Your task to perform on an android device: Open Youtube and go to the subscriptions tab Image 0: 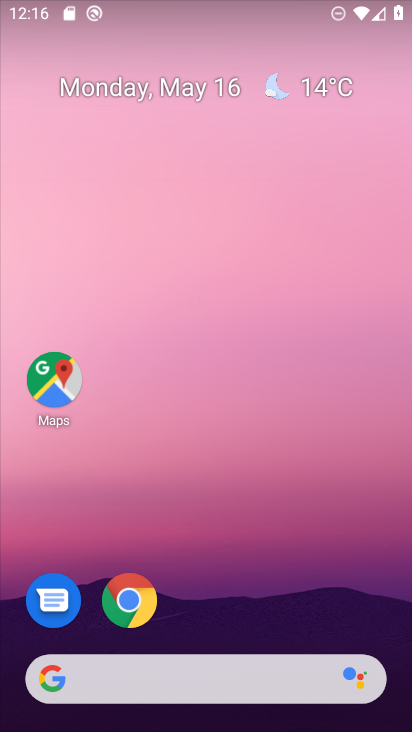
Step 0: drag from (220, 616) to (279, 47)
Your task to perform on an android device: Open Youtube and go to the subscriptions tab Image 1: 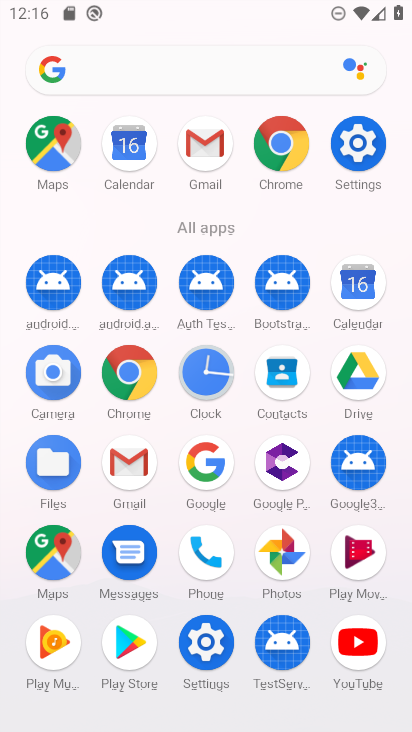
Step 1: click (355, 635)
Your task to perform on an android device: Open Youtube and go to the subscriptions tab Image 2: 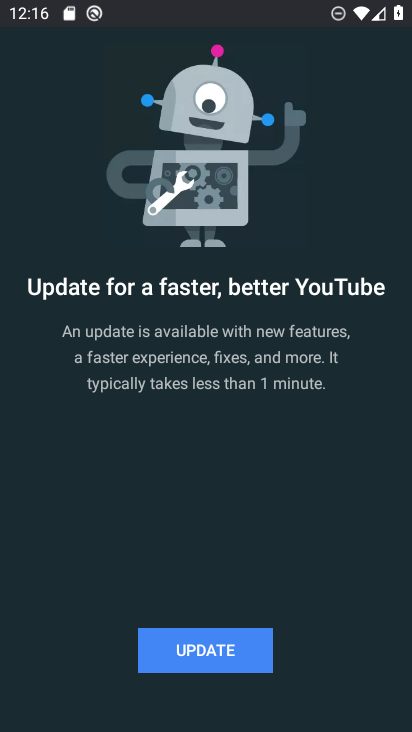
Step 2: click (207, 646)
Your task to perform on an android device: Open Youtube and go to the subscriptions tab Image 3: 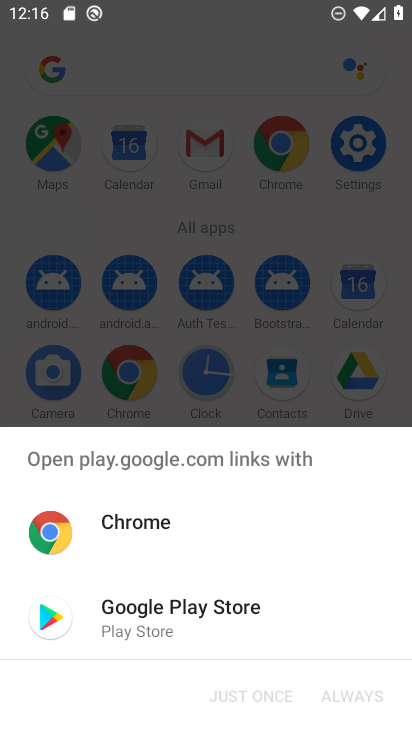
Step 3: click (146, 613)
Your task to perform on an android device: Open Youtube and go to the subscriptions tab Image 4: 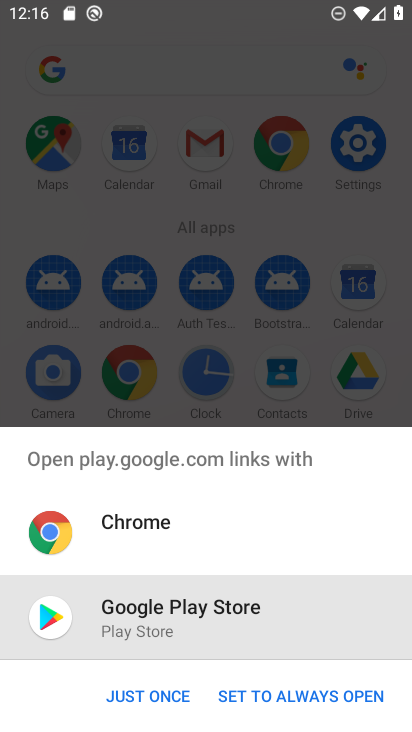
Step 4: click (155, 705)
Your task to perform on an android device: Open Youtube and go to the subscriptions tab Image 5: 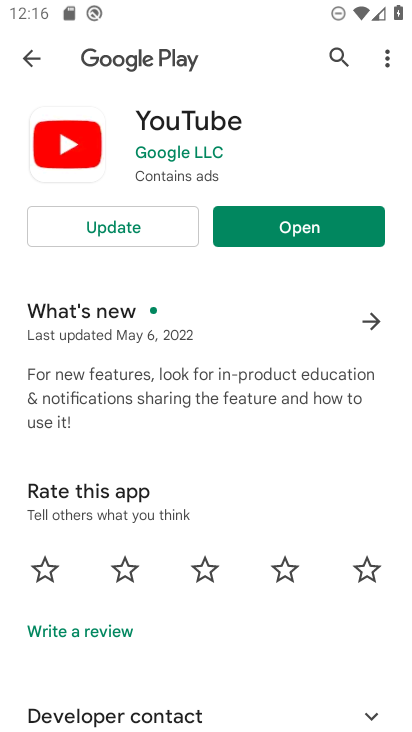
Step 5: click (123, 235)
Your task to perform on an android device: Open Youtube and go to the subscriptions tab Image 6: 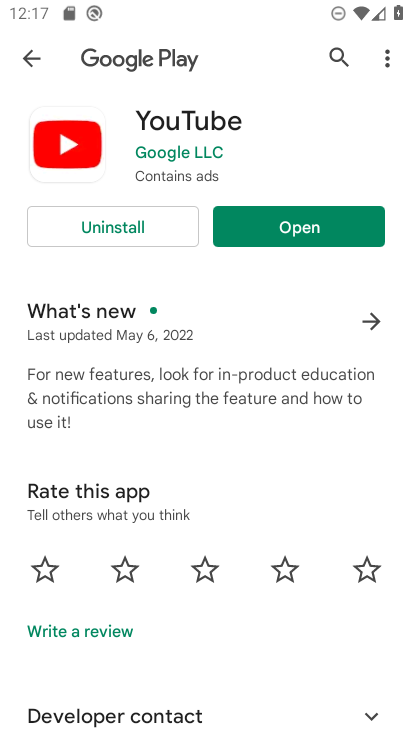
Step 6: click (314, 226)
Your task to perform on an android device: Open Youtube and go to the subscriptions tab Image 7: 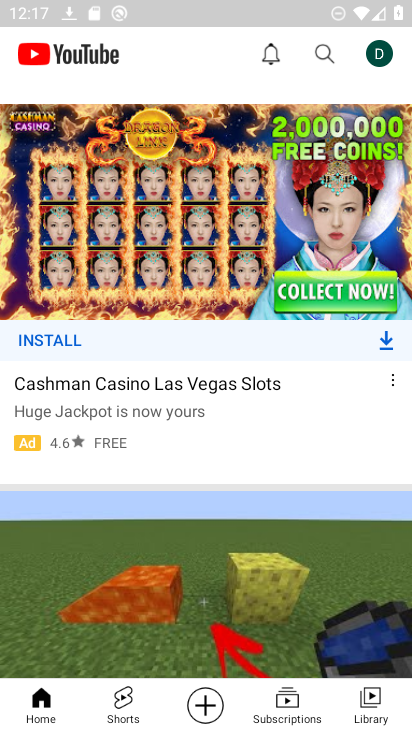
Step 7: drag from (217, 512) to (226, 138)
Your task to perform on an android device: Open Youtube and go to the subscriptions tab Image 8: 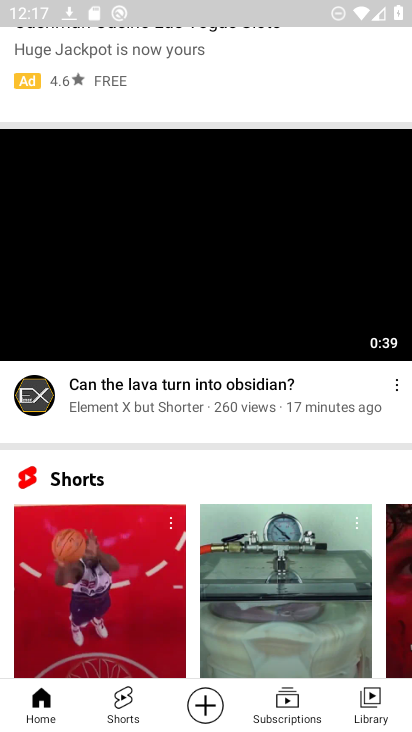
Step 8: drag from (175, 116) to (197, 521)
Your task to perform on an android device: Open Youtube and go to the subscriptions tab Image 9: 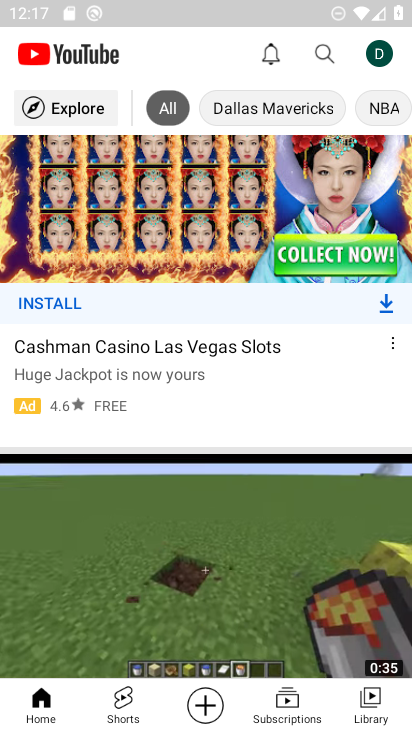
Step 9: click (76, 95)
Your task to perform on an android device: Open Youtube and go to the subscriptions tab Image 10: 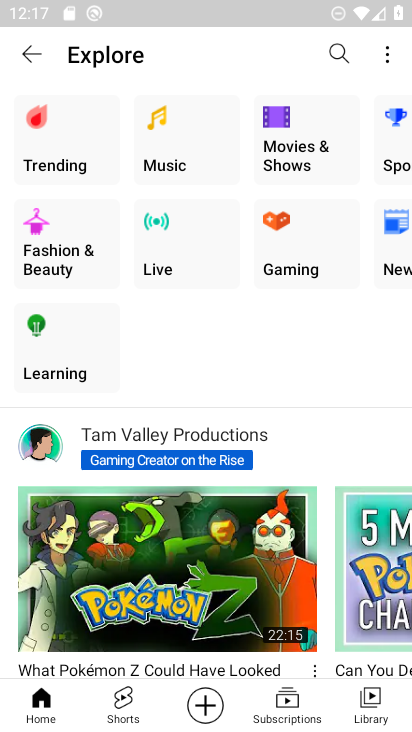
Step 10: click (289, 706)
Your task to perform on an android device: Open Youtube and go to the subscriptions tab Image 11: 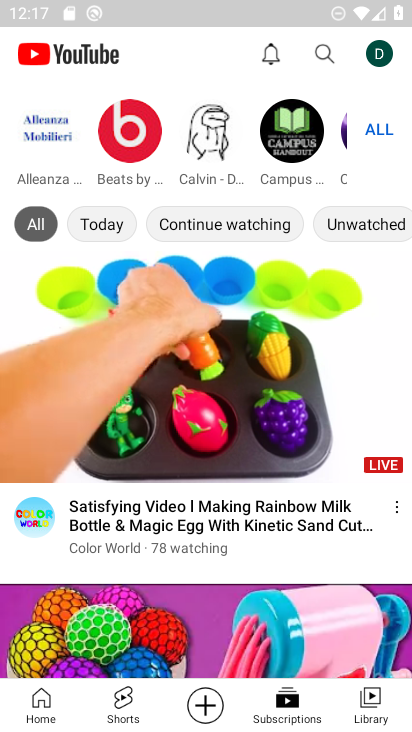
Step 11: task complete